Your task to perform on an android device: toggle notification dots Image 0: 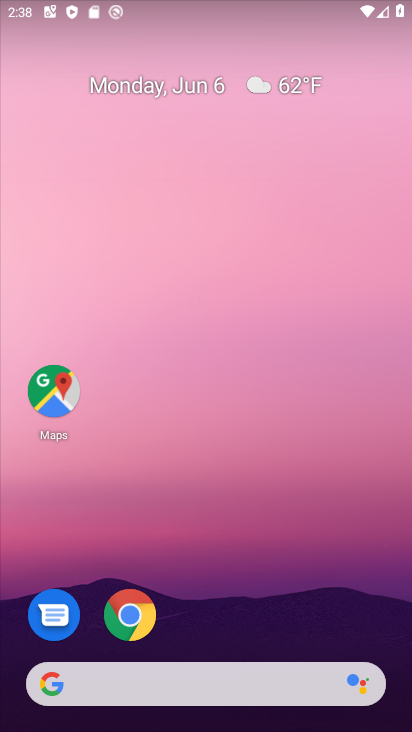
Step 0: drag from (281, 670) to (241, 34)
Your task to perform on an android device: toggle notification dots Image 1: 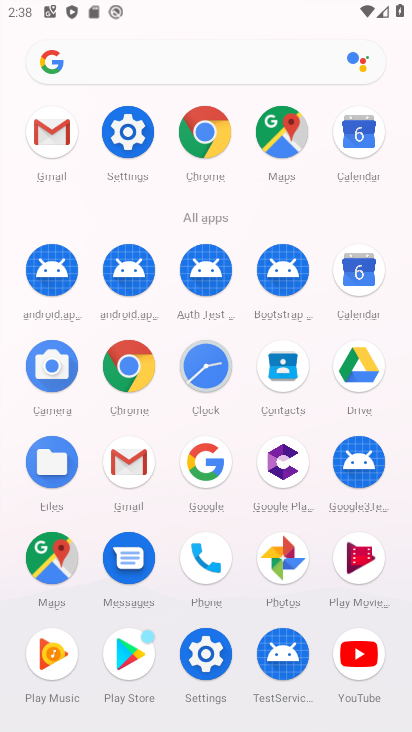
Step 1: click (115, 132)
Your task to perform on an android device: toggle notification dots Image 2: 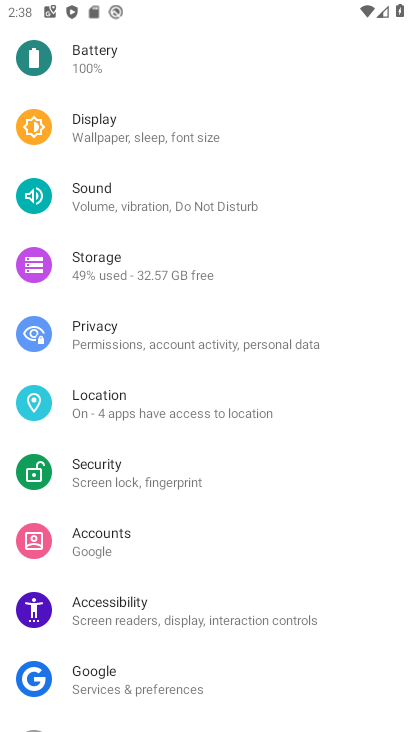
Step 2: drag from (137, 142) to (153, 477)
Your task to perform on an android device: toggle notification dots Image 3: 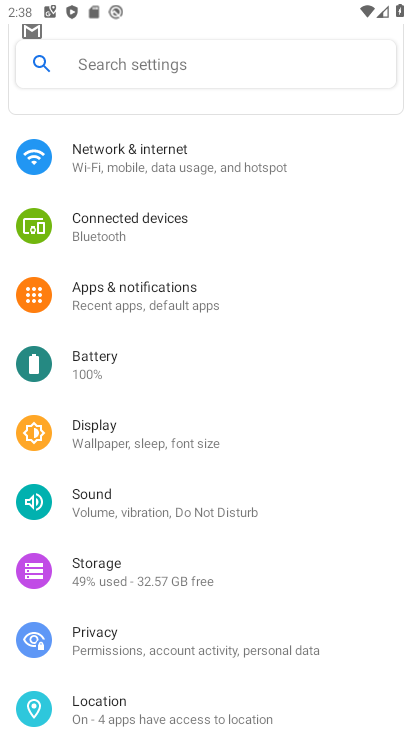
Step 3: click (132, 301)
Your task to perform on an android device: toggle notification dots Image 4: 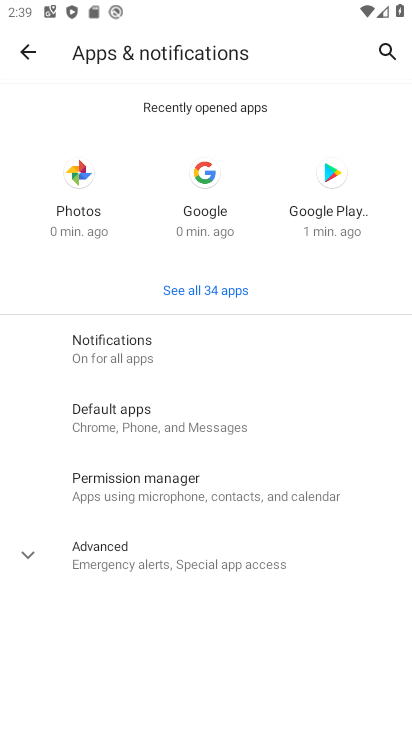
Step 4: click (120, 358)
Your task to perform on an android device: toggle notification dots Image 5: 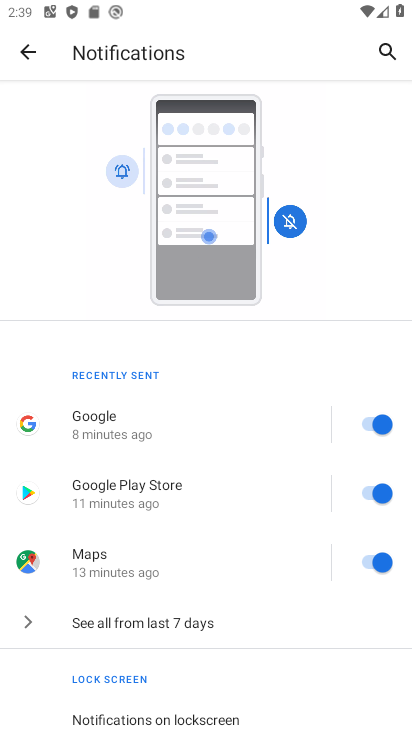
Step 5: drag from (239, 620) to (246, 73)
Your task to perform on an android device: toggle notification dots Image 6: 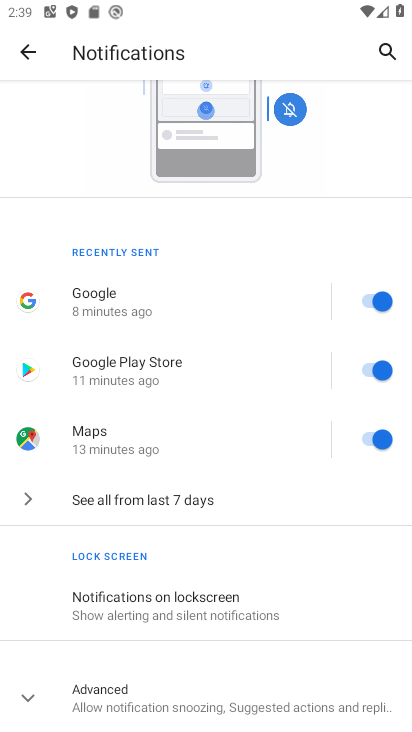
Step 6: click (132, 695)
Your task to perform on an android device: toggle notification dots Image 7: 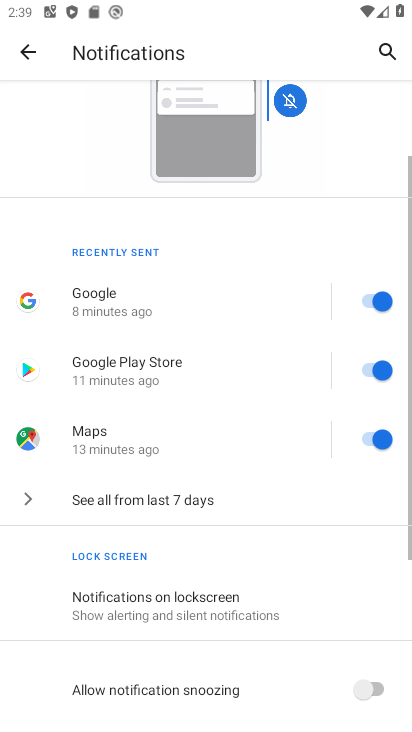
Step 7: click (252, 18)
Your task to perform on an android device: toggle notification dots Image 8: 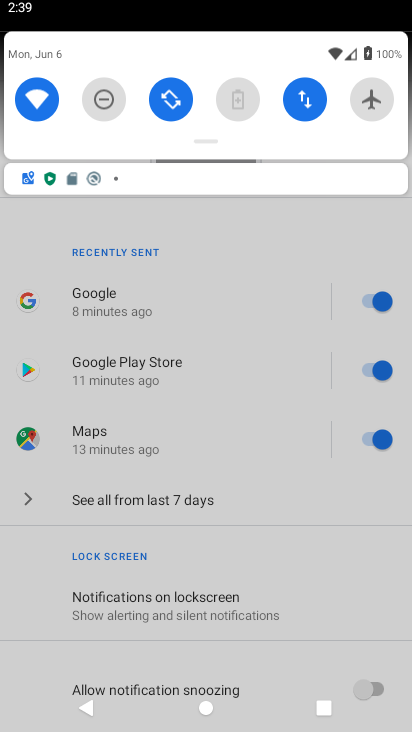
Step 8: click (259, 644)
Your task to perform on an android device: toggle notification dots Image 9: 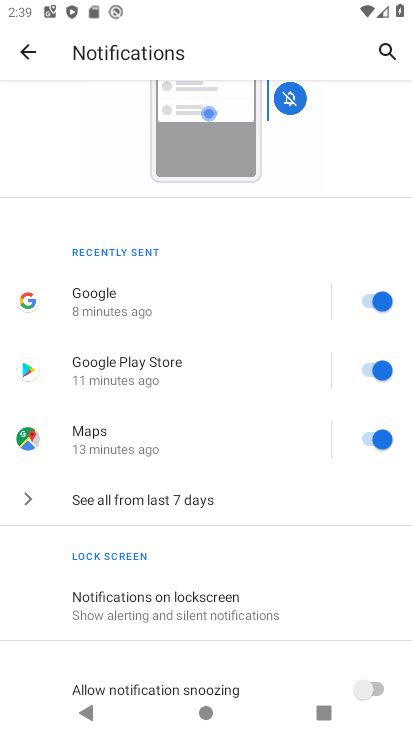
Step 9: drag from (256, 590) to (268, 256)
Your task to perform on an android device: toggle notification dots Image 10: 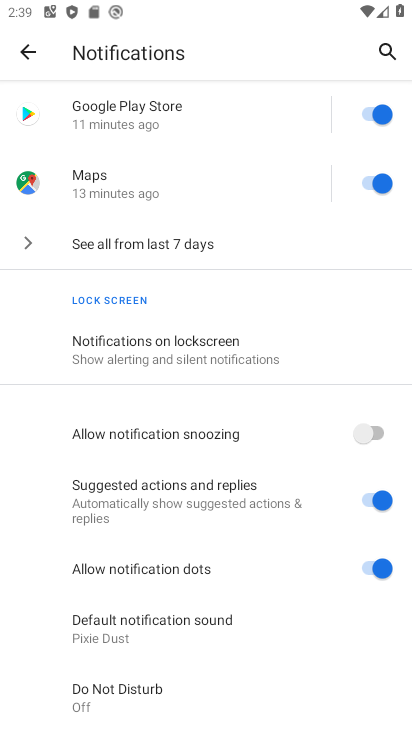
Step 10: click (370, 567)
Your task to perform on an android device: toggle notification dots Image 11: 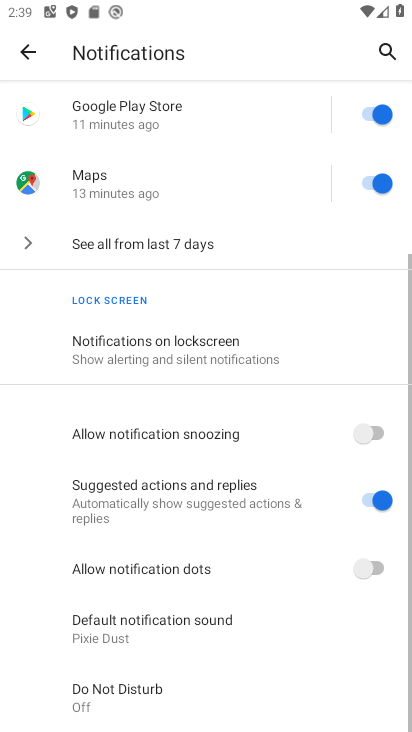
Step 11: task complete